Your task to perform on an android device: find photos in the google photos app Image 0: 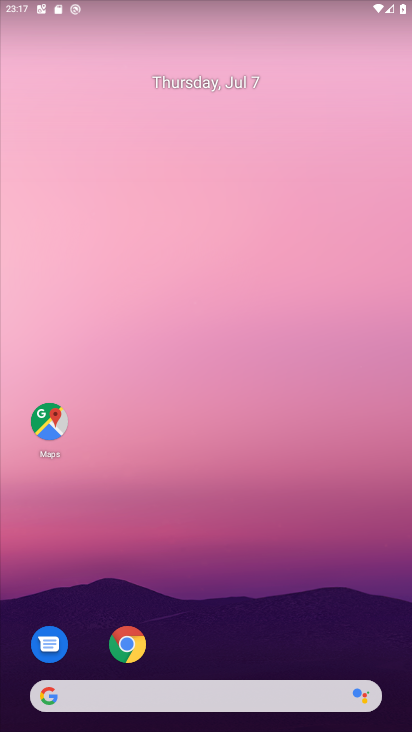
Step 0: drag from (204, 728) to (152, 130)
Your task to perform on an android device: find photos in the google photos app Image 1: 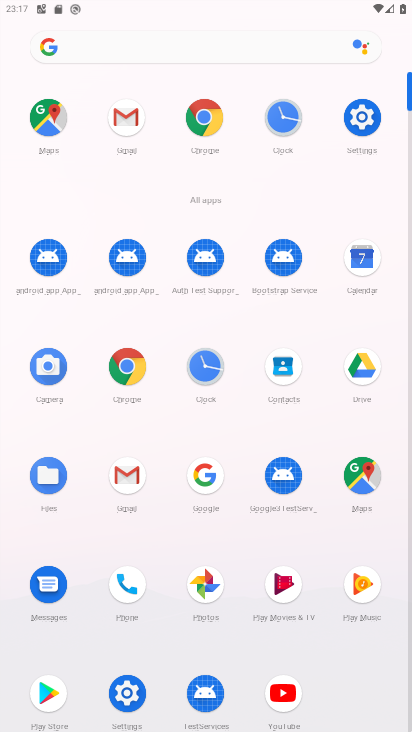
Step 1: click (208, 581)
Your task to perform on an android device: find photos in the google photos app Image 2: 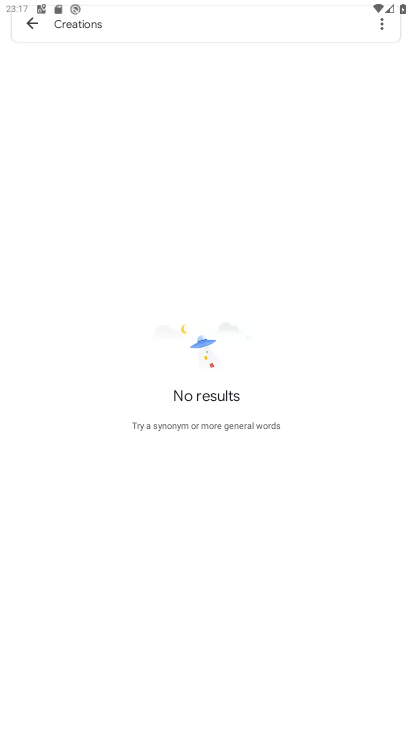
Step 2: click (28, 21)
Your task to perform on an android device: find photos in the google photos app Image 3: 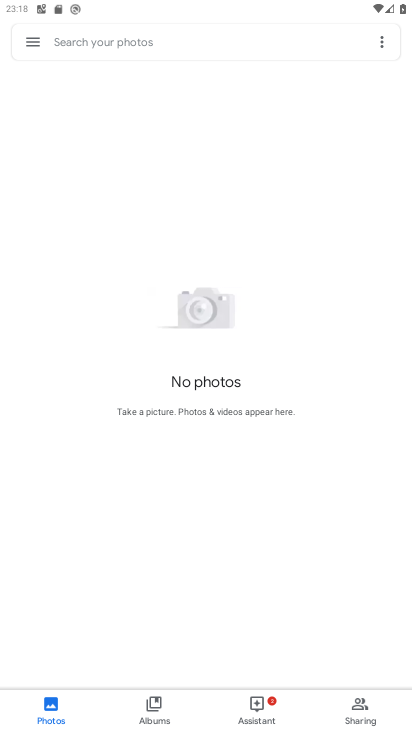
Step 3: task complete